Your task to perform on an android device: Open location settings Image 0: 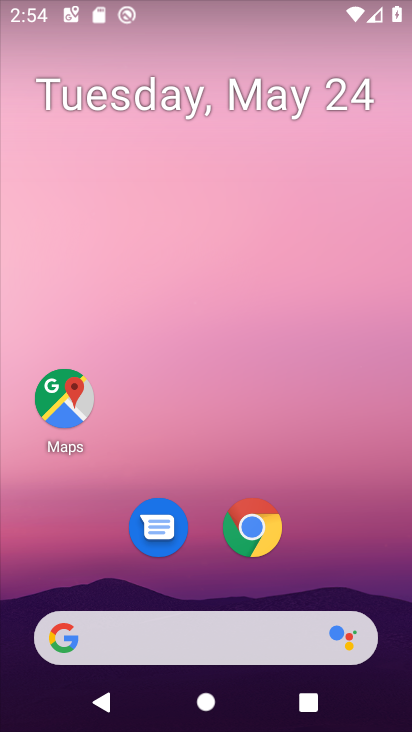
Step 0: drag from (362, 598) to (385, 7)
Your task to perform on an android device: Open location settings Image 1: 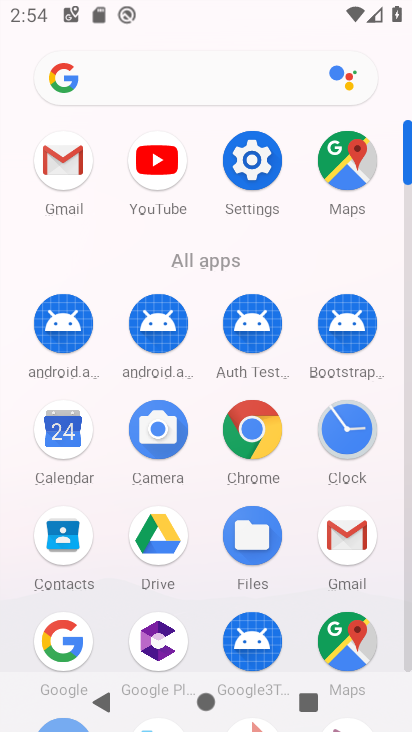
Step 1: click (257, 163)
Your task to perform on an android device: Open location settings Image 2: 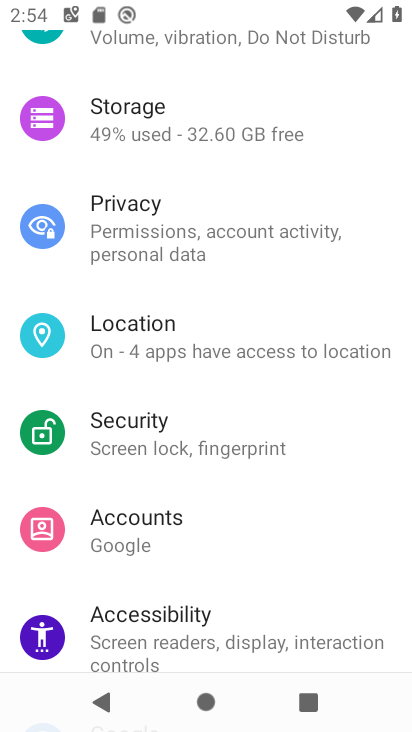
Step 2: click (131, 344)
Your task to perform on an android device: Open location settings Image 3: 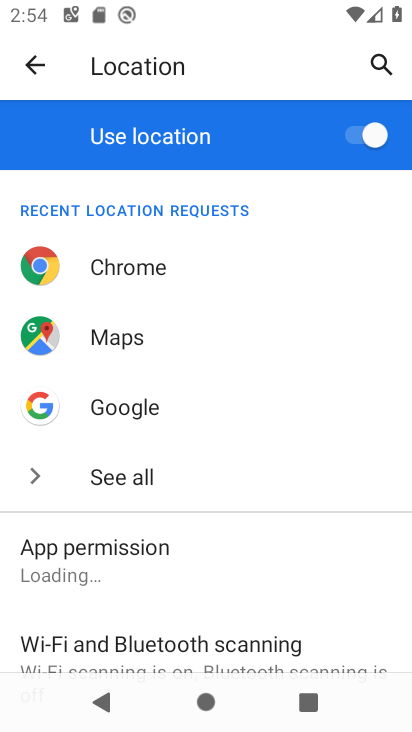
Step 3: task complete